Your task to perform on an android device: check google app version Image 0: 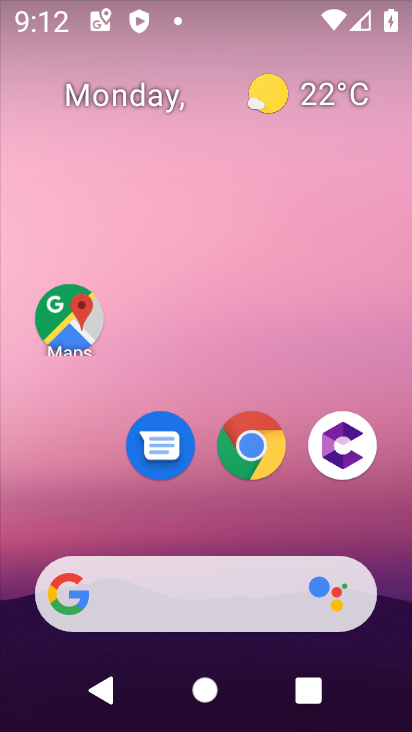
Step 0: click (70, 597)
Your task to perform on an android device: check google app version Image 1: 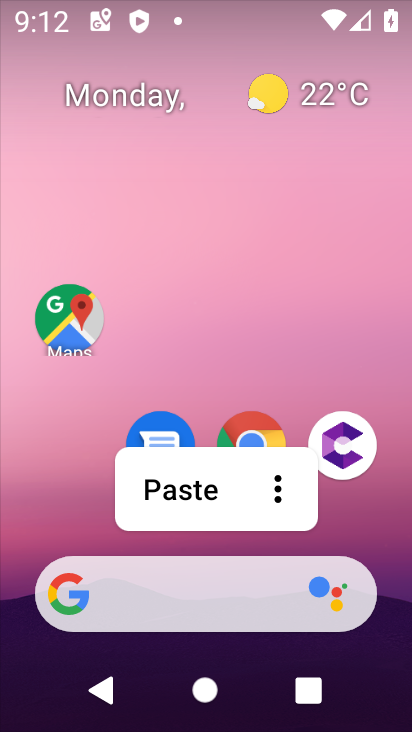
Step 1: drag from (65, 523) to (178, 82)
Your task to perform on an android device: check google app version Image 2: 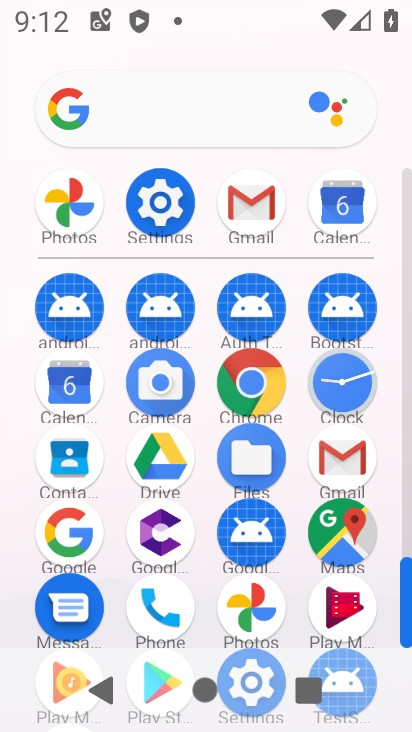
Step 2: click (66, 533)
Your task to perform on an android device: check google app version Image 3: 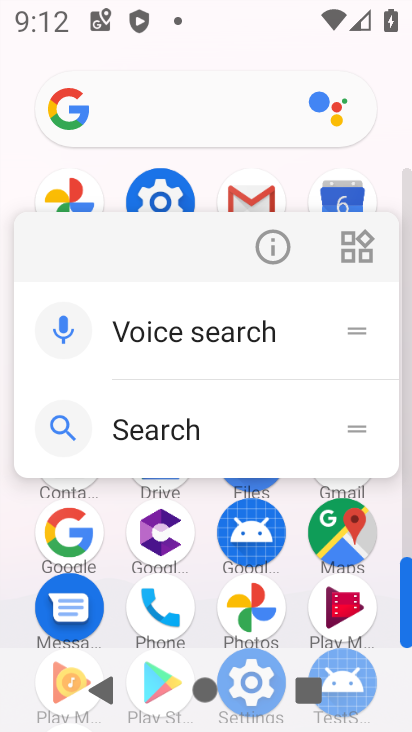
Step 3: click (271, 246)
Your task to perform on an android device: check google app version Image 4: 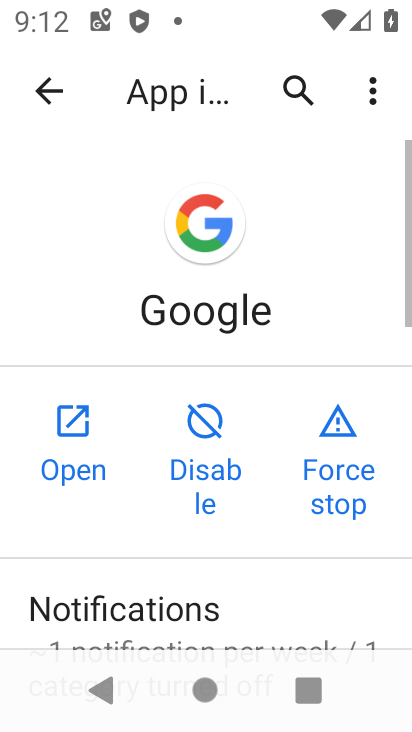
Step 4: drag from (291, 571) to (292, 1)
Your task to perform on an android device: check google app version Image 5: 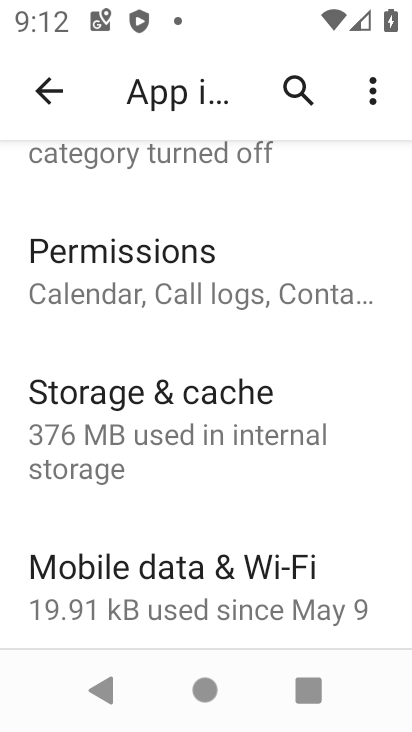
Step 5: drag from (307, 496) to (333, 3)
Your task to perform on an android device: check google app version Image 6: 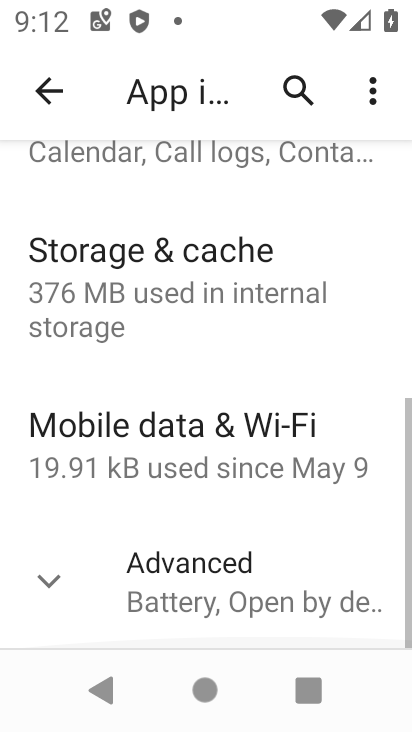
Step 6: click (166, 602)
Your task to perform on an android device: check google app version Image 7: 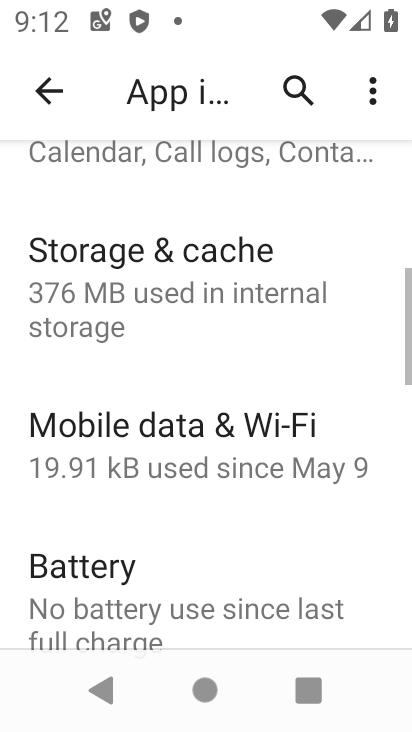
Step 7: task complete